Your task to perform on an android device: Show me popular videos on Youtube Image 0: 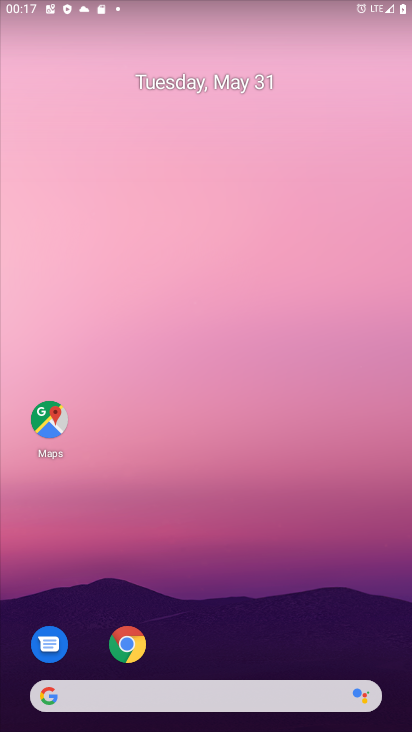
Step 0: drag from (383, 649) to (325, 113)
Your task to perform on an android device: Show me popular videos on Youtube Image 1: 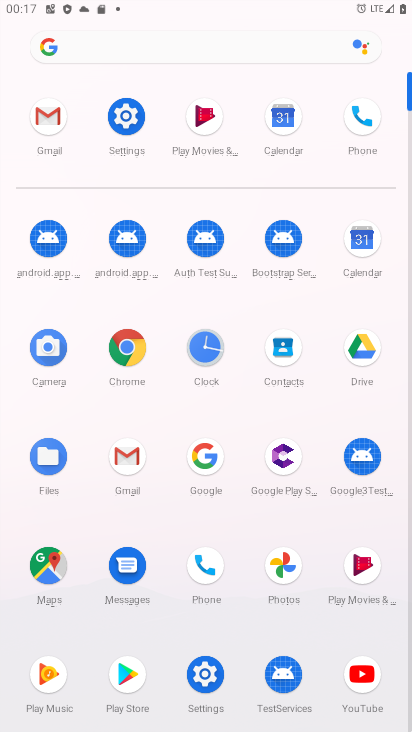
Step 1: click (363, 675)
Your task to perform on an android device: Show me popular videos on Youtube Image 2: 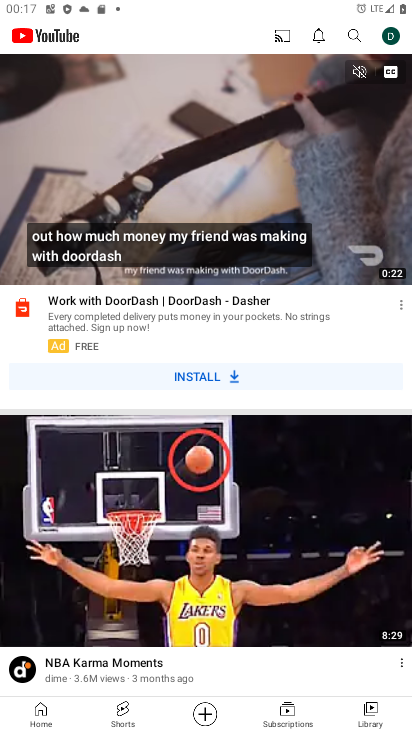
Step 2: click (40, 713)
Your task to perform on an android device: Show me popular videos on Youtube Image 3: 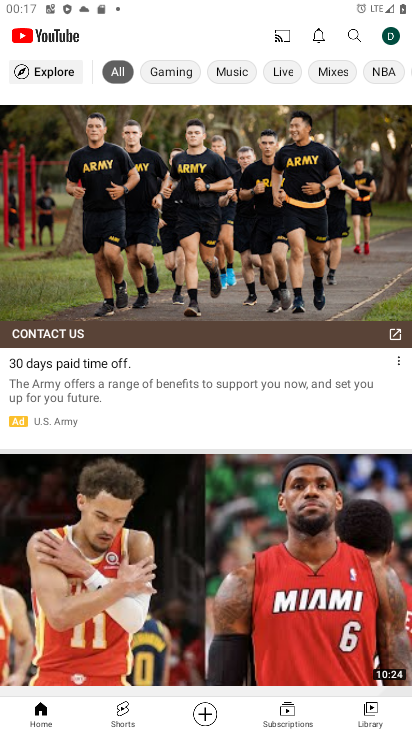
Step 3: click (128, 714)
Your task to perform on an android device: Show me popular videos on Youtube Image 4: 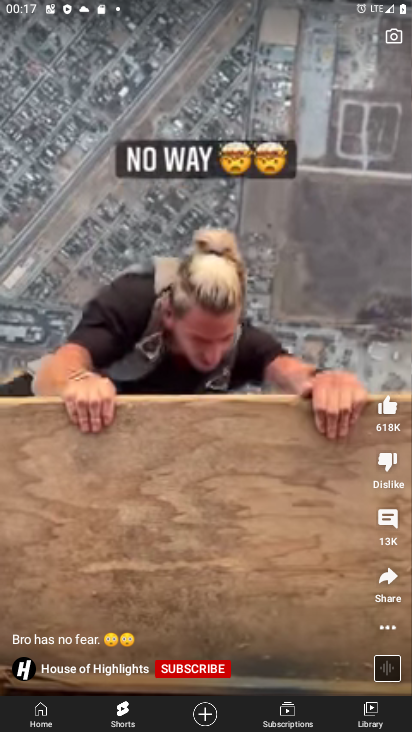
Step 4: click (52, 722)
Your task to perform on an android device: Show me popular videos on Youtube Image 5: 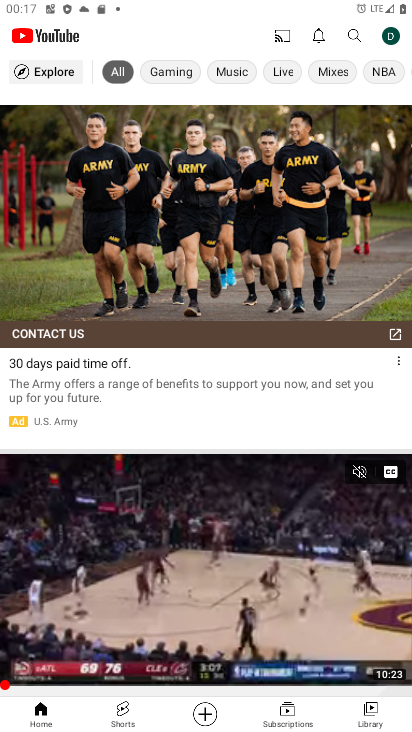
Step 5: click (54, 75)
Your task to perform on an android device: Show me popular videos on Youtube Image 6: 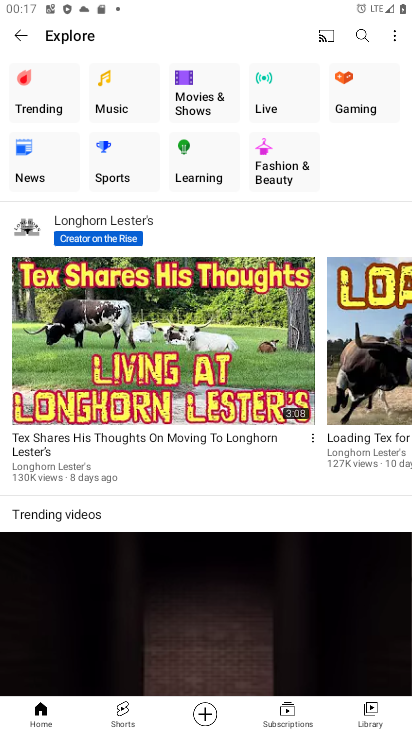
Step 6: click (32, 90)
Your task to perform on an android device: Show me popular videos on Youtube Image 7: 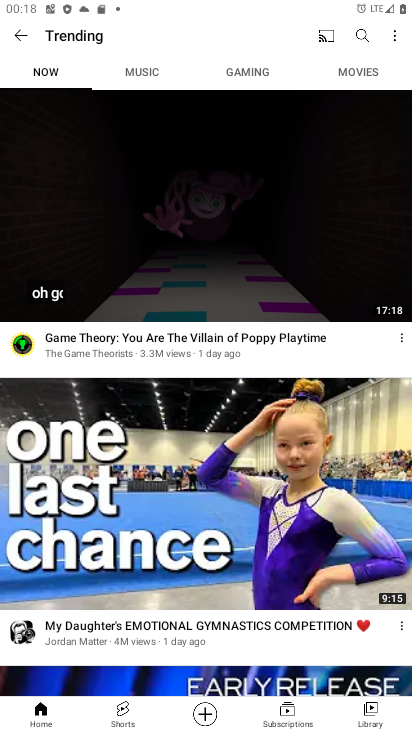
Step 7: task complete